Your task to perform on an android device: open a bookmark in the chrome app Image 0: 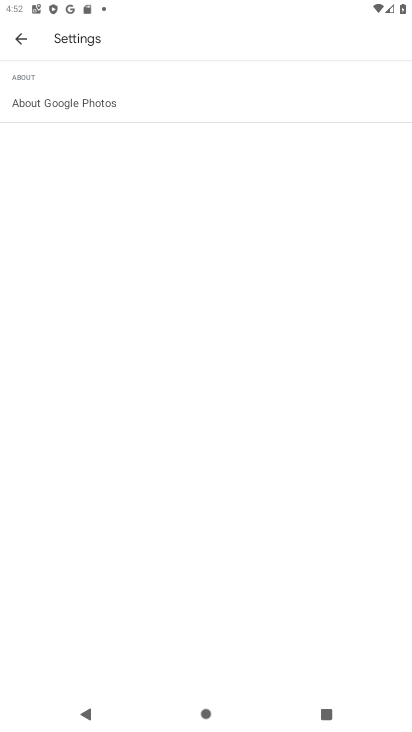
Step 0: press home button
Your task to perform on an android device: open a bookmark in the chrome app Image 1: 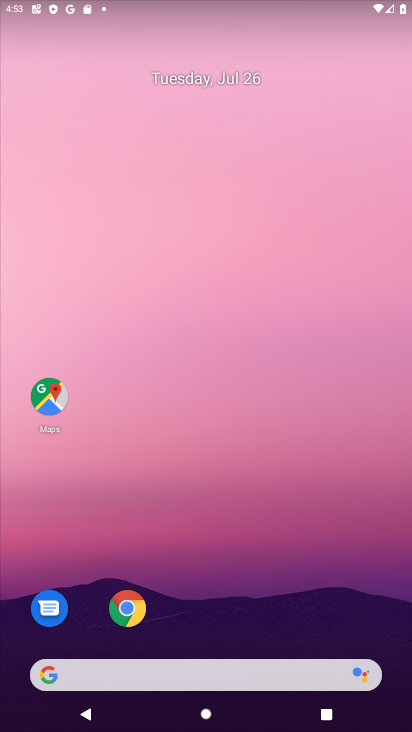
Step 1: click (120, 605)
Your task to perform on an android device: open a bookmark in the chrome app Image 2: 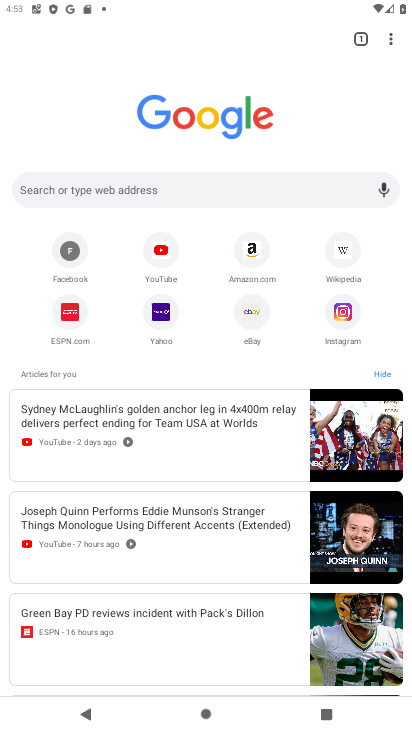
Step 2: click (392, 41)
Your task to perform on an android device: open a bookmark in the chrome app Image 3: 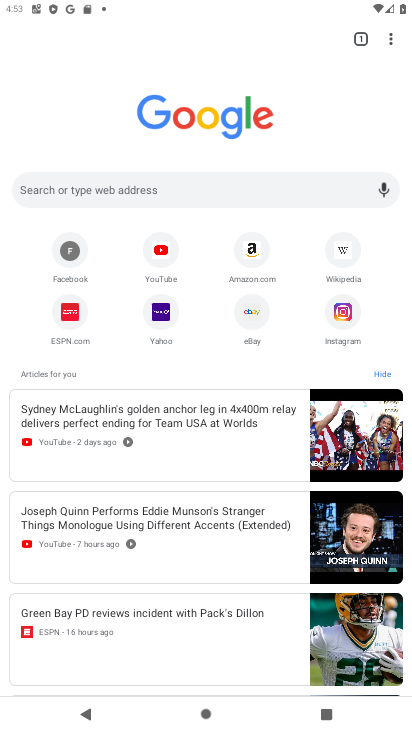
Step 3: click (385, 36)
Your task to perform on an android device: open a bookmark in the chrome app Image 4: 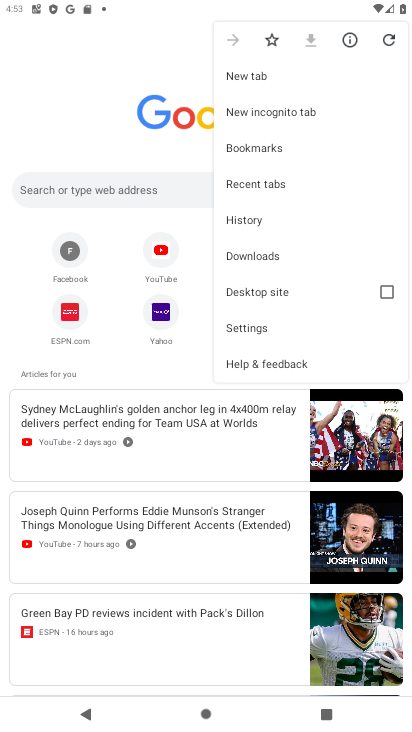
Step 4: click (258, 147)
Your task to perform on an android device: open a bookmark in the chrome app Image 5: 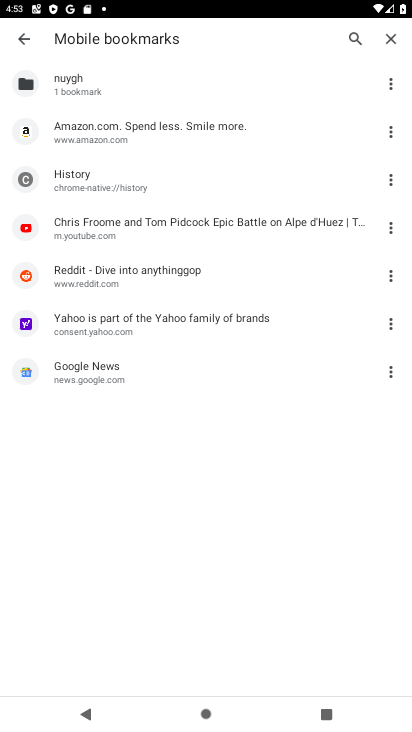
Step 5: task complete